Your task to perform on an android device: Open the web browser Image 0: 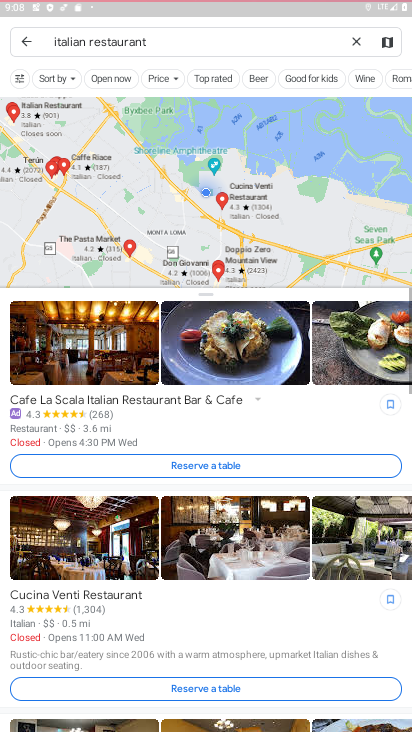
Step 0: click (229, 116)
Your task to perform on an android device: Open the web browser Image 1: 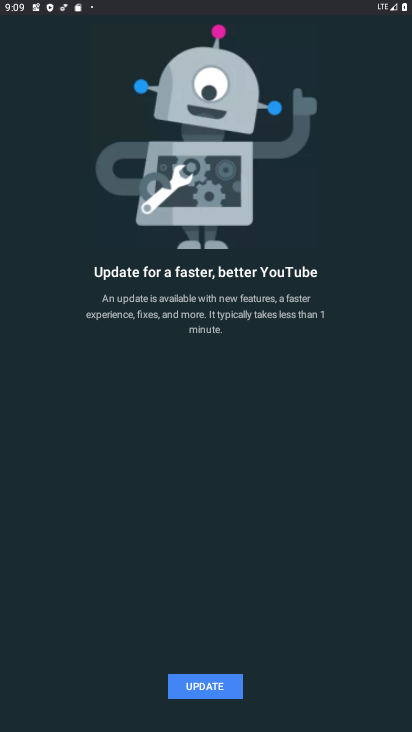
Step 1: press home button
Your task to perform on an android device: Open the web browser Image 2: 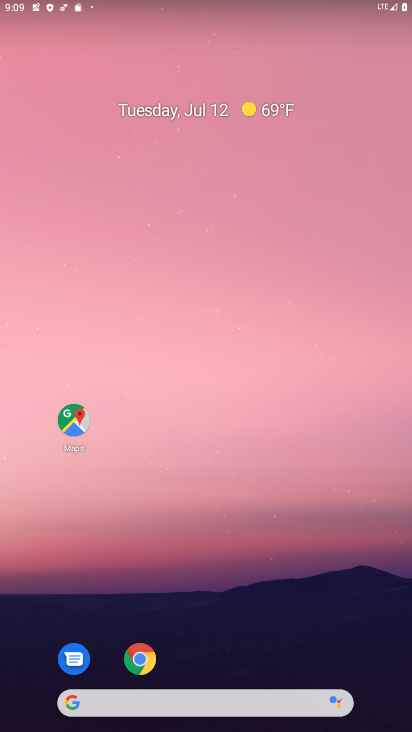
Step 2: drag from (188, 577) to (193, 203)
Your task to perform on an android device: Open the web browser Image 3: 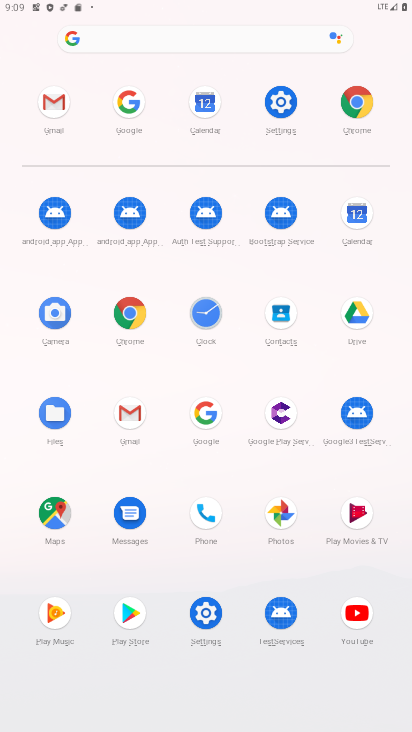
Step 3: click (353, 105)
Your task to perform on an android device: Open the web browser Image 4: 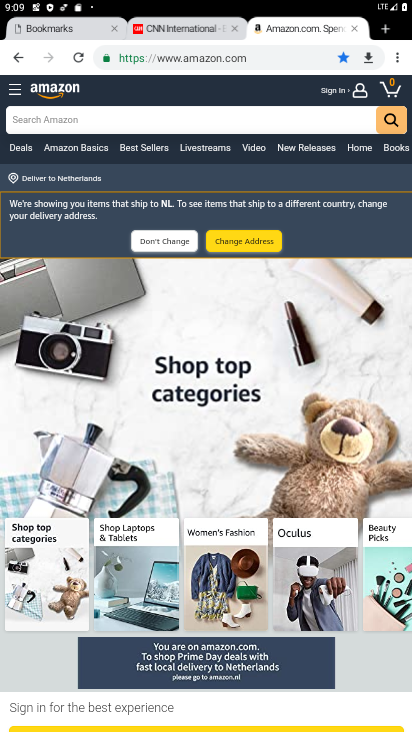
Step 4: task complete